Your task to perform on an android device: toggle priority inbox in the gmail app Image 0: 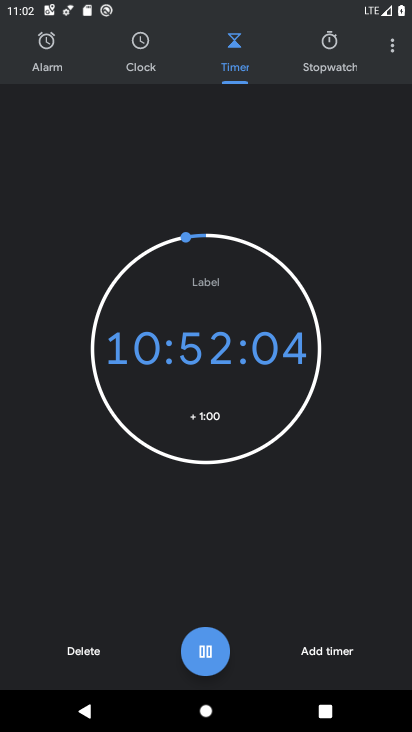
Step 0: press home button
Your task to perform on an android device: toggle priority inbox in the gmail app Image 1: 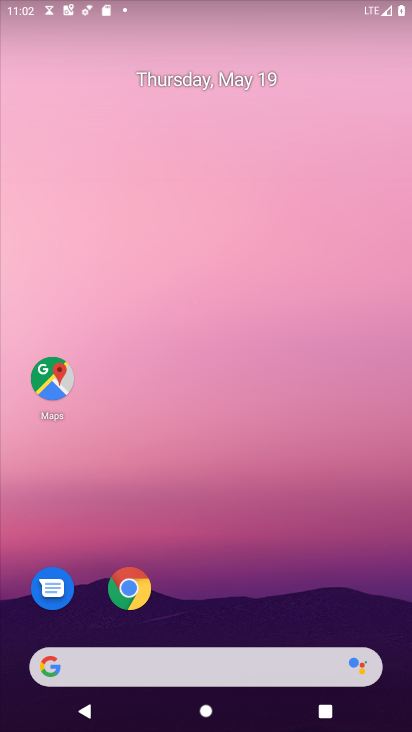
Step 1: drag from (305, 523) to (195, 57)
Your task to perform on an android device: toggle priority inbox in the gmail app Image 2: 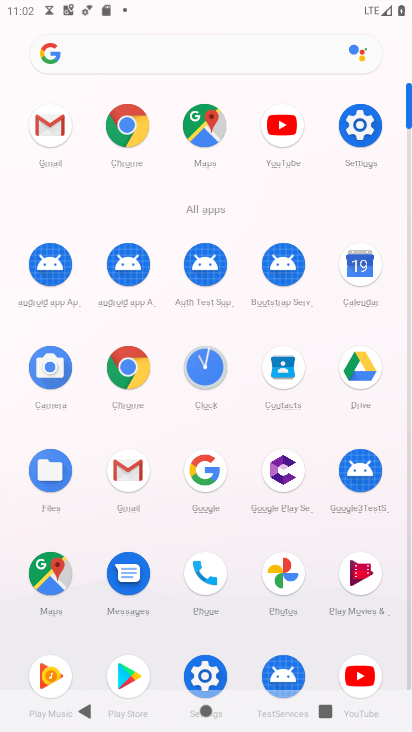
Step 2: click (52, 114)
Your task to perform on an android device: toggle priority inbox in the gmail app Image 3: 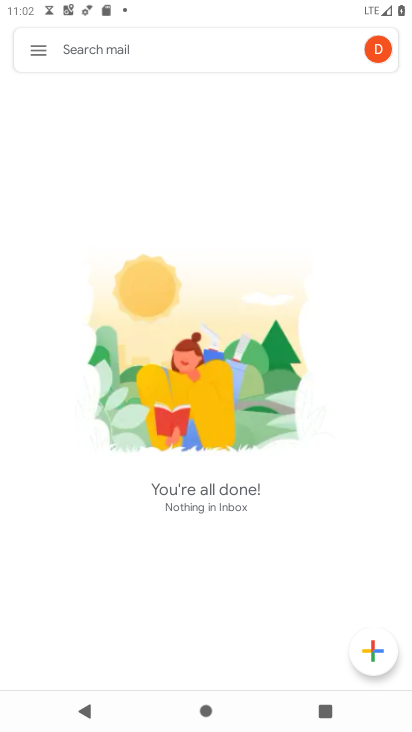
Step 3: click (37, 52)
Your task to perform on an android device: toggle priority inbox in the gmail app Image 4: 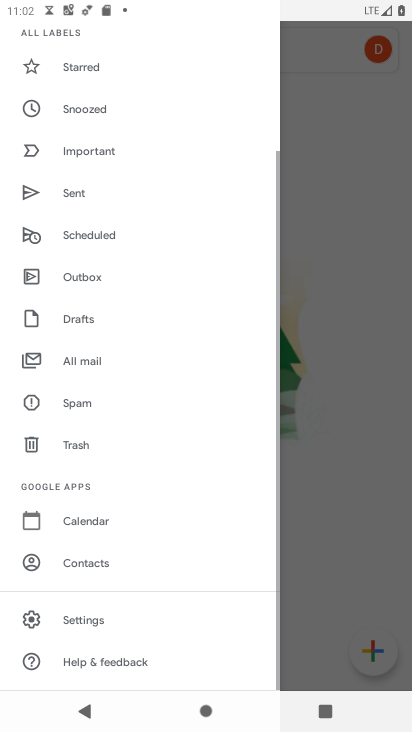
Step 4: click (162, 614)
Your task to perform on an android device: toggle priority inbox in the gmail app Image 5: 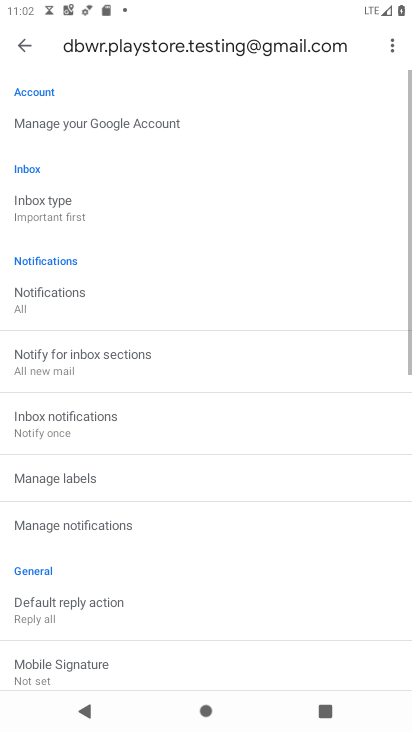
Step 5: click (124, 202)
Your task to perform on an android device: toggle priority inbox in the gmail app Image 6: 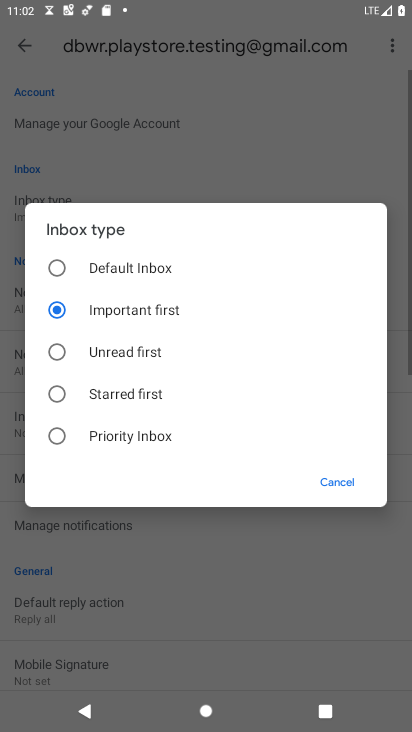
Step 6: click (146, 438)
Your task to perform on an android device: toggle priority inbox in the gmail app Image 7: 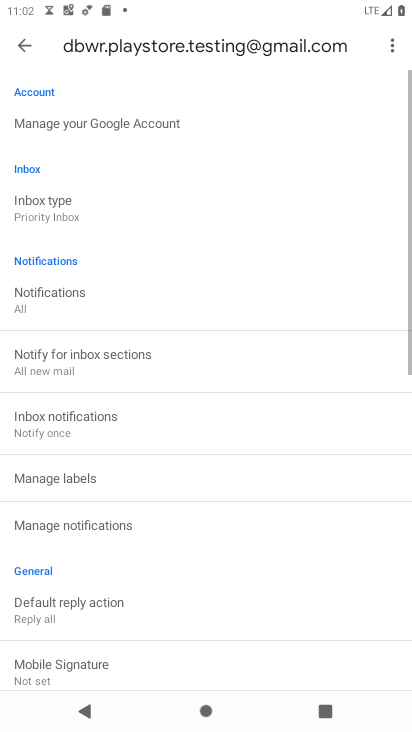
Step 7: task complete